Your task to perform on an android device: Go to privacy settings Image 0: 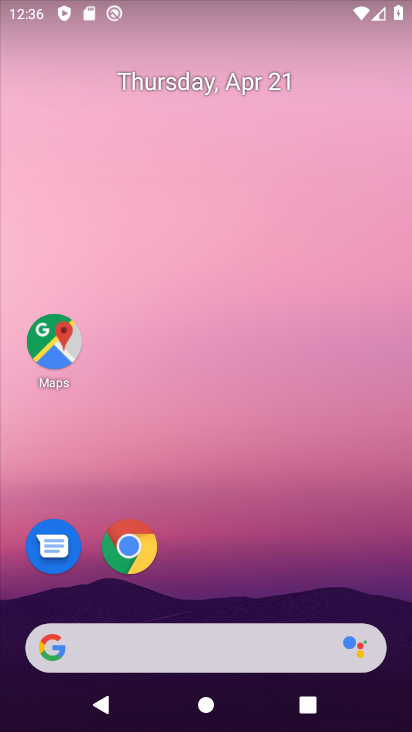
Step 0: drag from (255, 590) to (270, 133)
Your task to perform on an android device: Go to privacy settings Image 1: 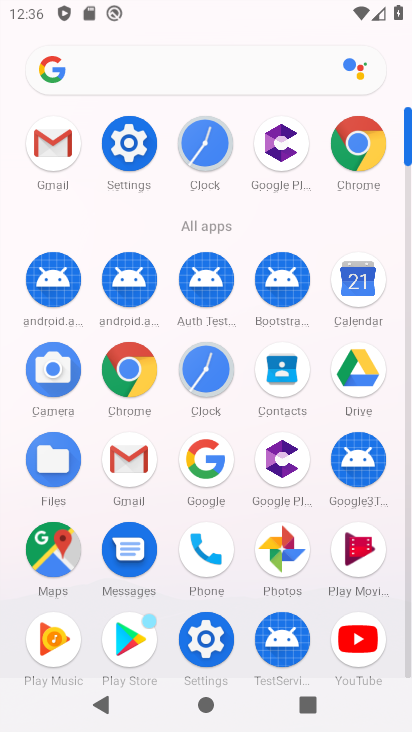
Step 1: click (129, 150)
Your task to perform on an android device: Go to privacy settings Image 2: 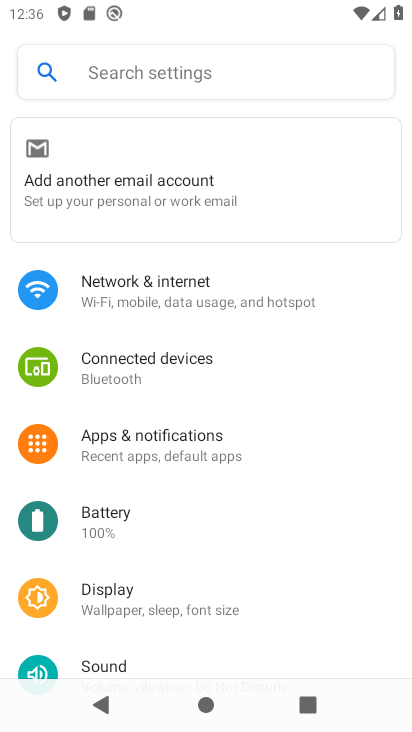
Step 2: drag from (155, 656) to (172, 251)
Your task to perform on an android device: Go to privacy settings Image 3: 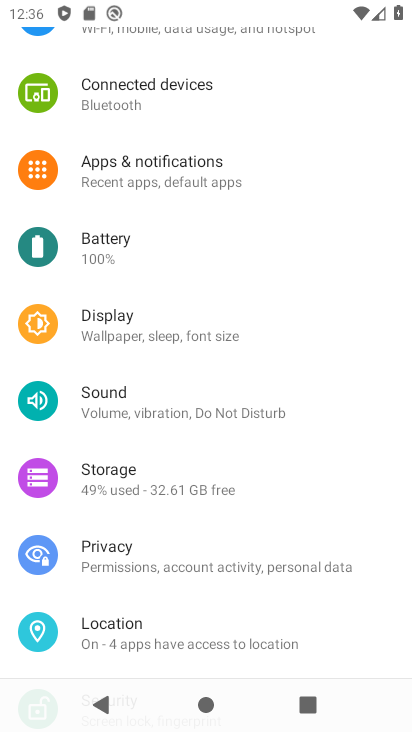
Step 3: click (130, 555)
Your task to perform on an android device: Go to privacy settings Image 4: 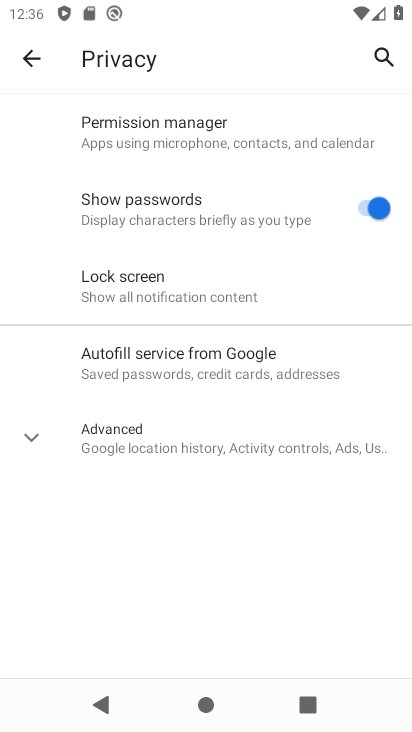
Step 4: task complete